Your task to perform on an android device: remove spam from my inbox in the gmail app Image 0: 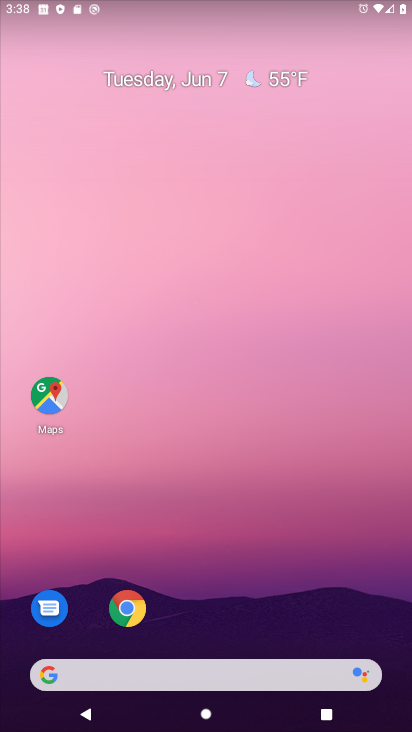
Step 0: drag from (229, 652) to (188, 48)
Your task to perform on an android device: remove spam from my inbox in the gmail app Image 1: 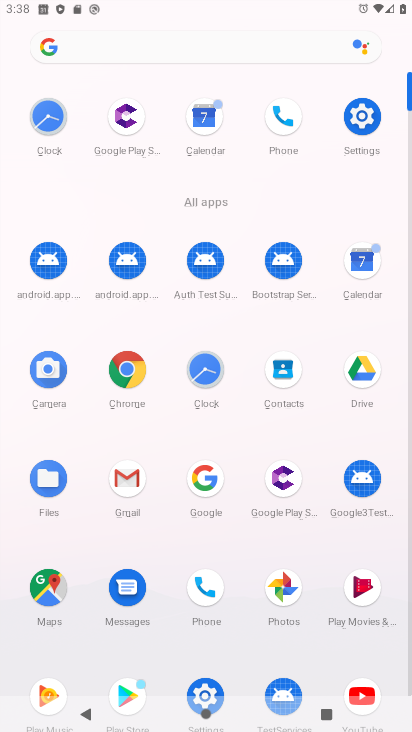
Step 1: click (132, 486)
Your task to perform on an android device: remove spam from my inbox in the gmail app Image 2: 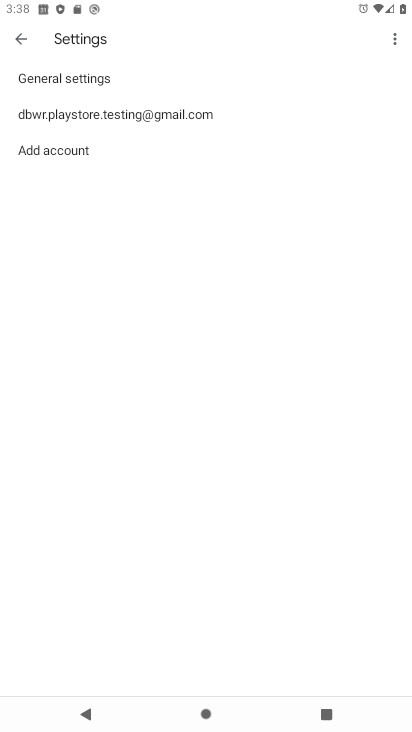
Step 2: click (19, 31)
Your task to perform on an android device: remove spam from my inbox in the gmail app Image 3: 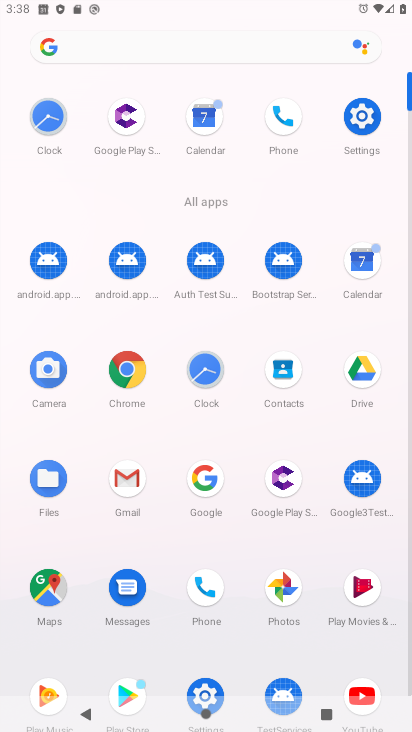
Step 3: click (127, 480)
Your task to perform on an android device: remove spam from my inbox in the gmail app Image 4: 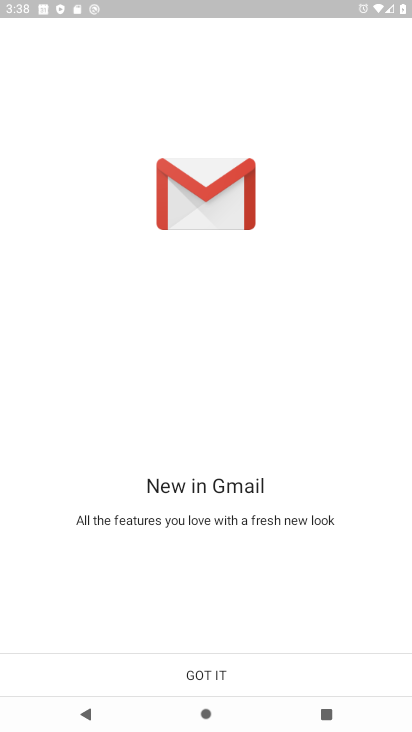
Step 4: click (217, 673)
Your task to perform on an android device: remove spam from my inbox in the gmail app Image 5: 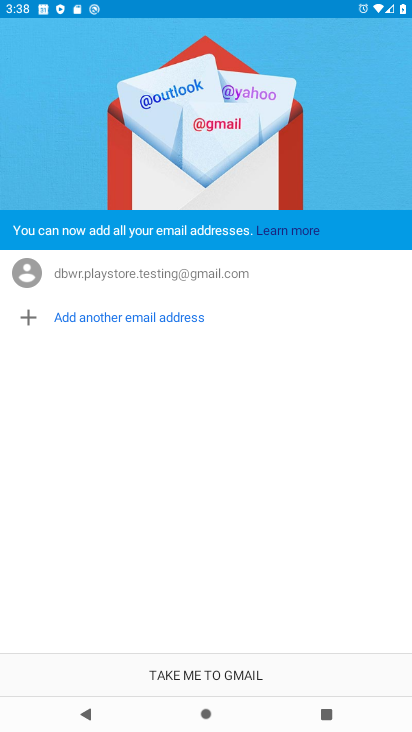
Step 5: click (216, 674)
Your task to perform on an android device: remove spam from my inbox in the gmail app Image 6: 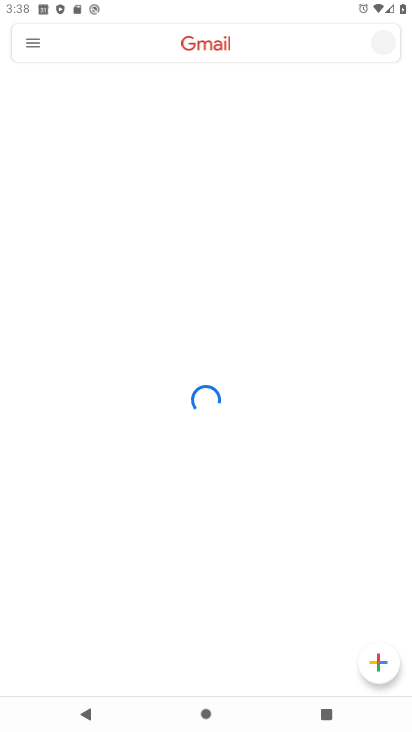
Step 6: click (30, 56)
Your task to perform on an android device: remove spam from my inbox in the gmail app Image 7: 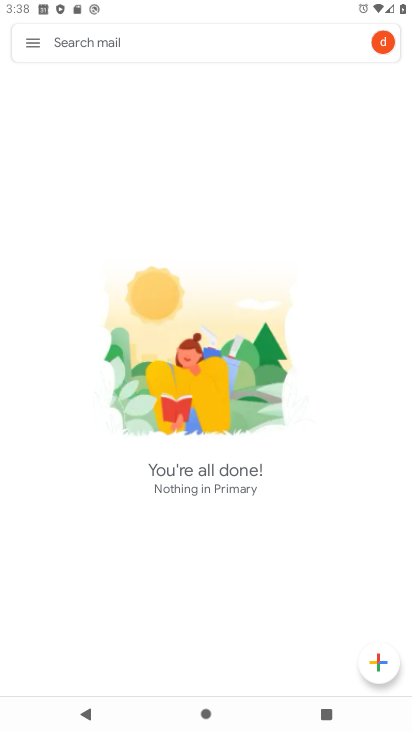
Step 7: drag from (33, 39) to (100, 184)
Your task to perform on an android device: remove spam from my inbox in the gmail app Image 8: 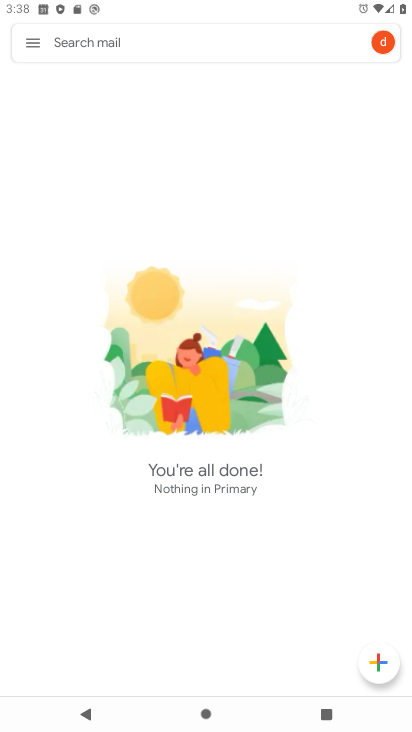
Step 8: click (29, 35)
Your task to perform on an android device: remove spam from my inbox in the gmail app Image 9: 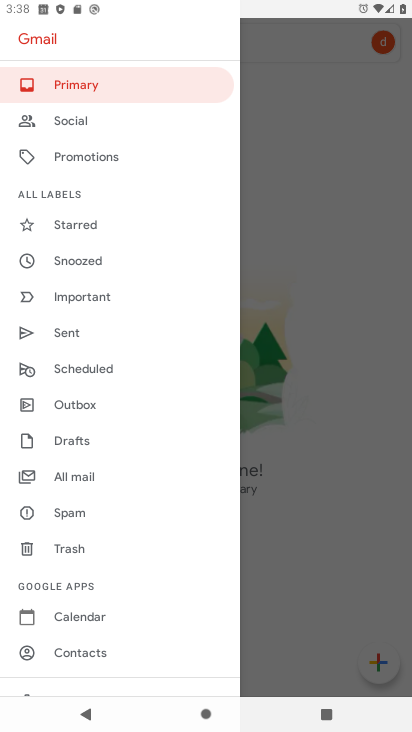
Step 9: click (86, 517)
Your task to perform on an android device: remove spam from my inbox in the gmail app Image 10: 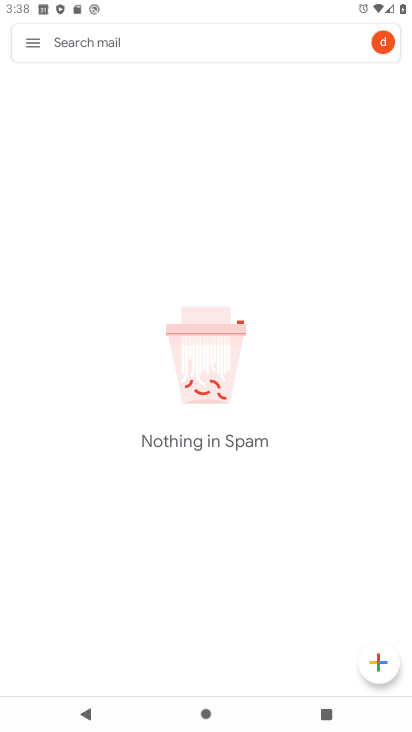
Step 10: task complete